Your task to perform on an android device: Go to eBay Image 0: 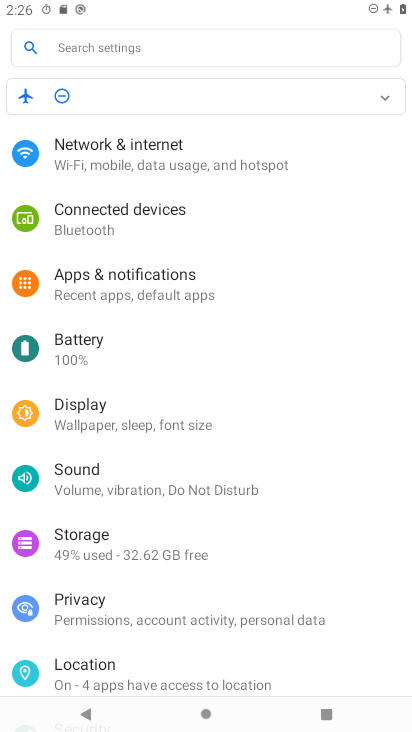
Step 0: press home button
Your task to perform on an android device: Go to eBay Image 1: 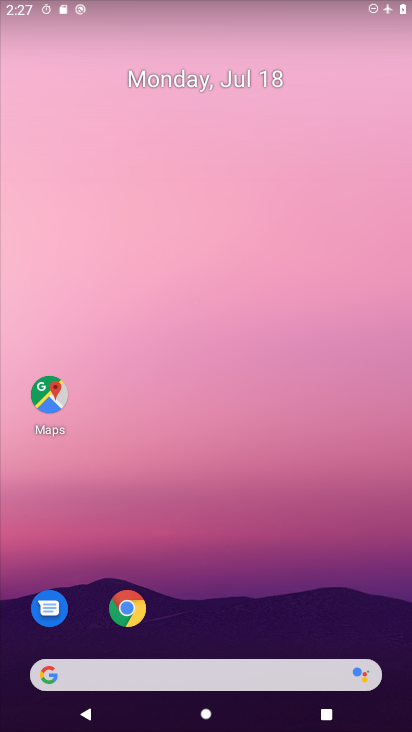
Step 1: click (121, 609)
Your task to perform on an android device: Go to eBay Image 2: 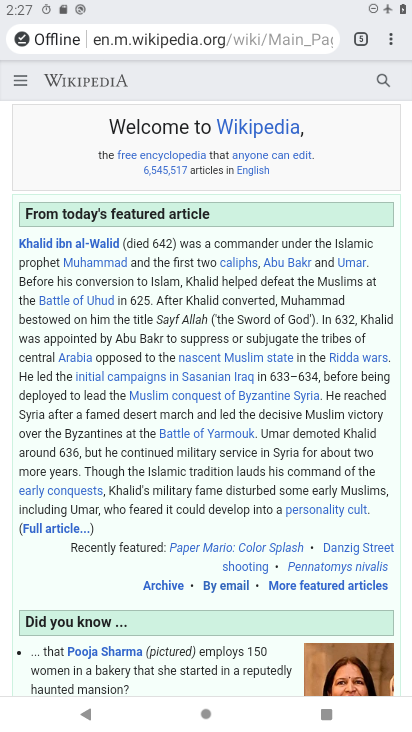
Step 2: click (392, 41)
Your task to perform on an android device: Go to eBay Image 3: 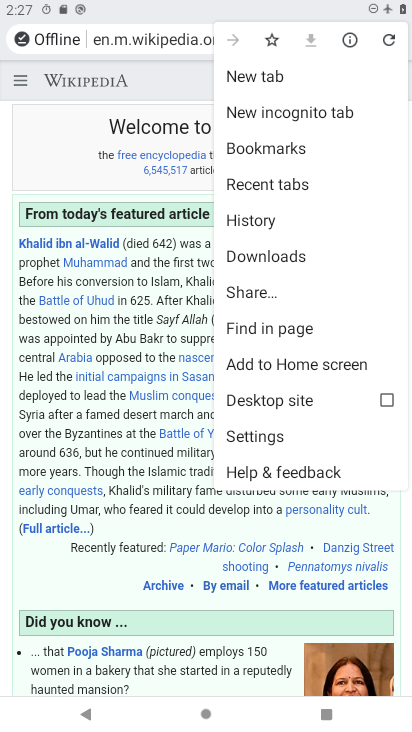
Step 3: click (270, 74)
Your task to perform on an android device: Go to eBay Image 4: 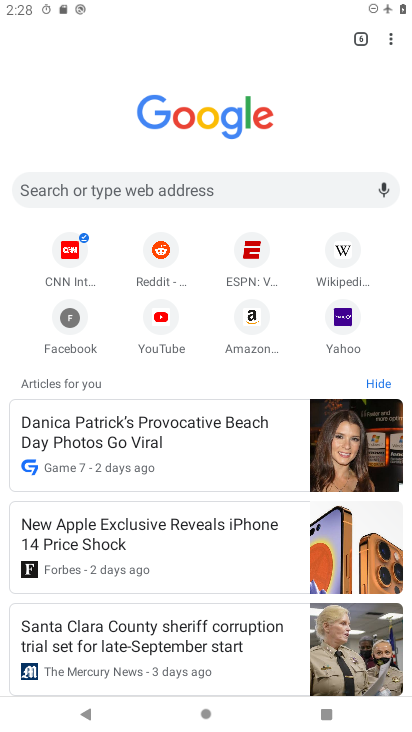
Step 4: click (229, 178)
Your task to perform on an android device: Go to eBay Image 5: 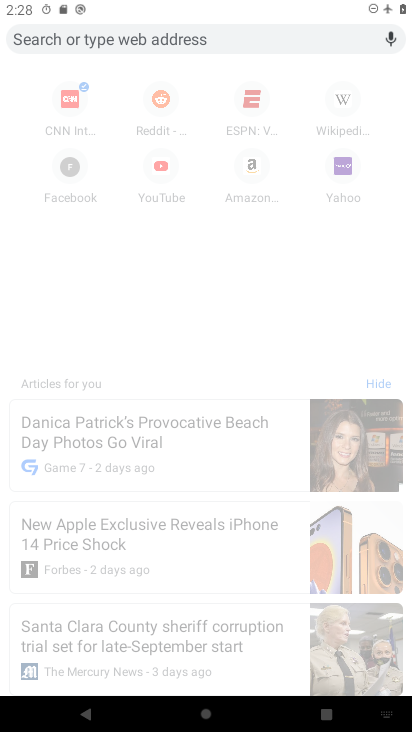
Step 5: type "eBay"
Your task to perform on an android device: Go to eBay Image 6: 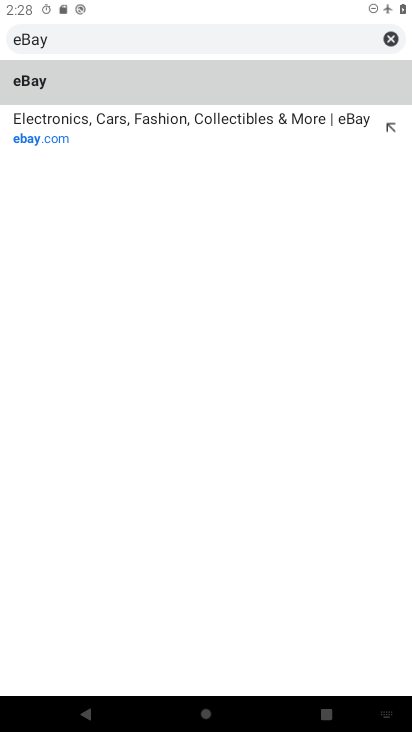
Step 6: click (61, 75)
Your task to perform on an android device: Go to eBay Image 7: 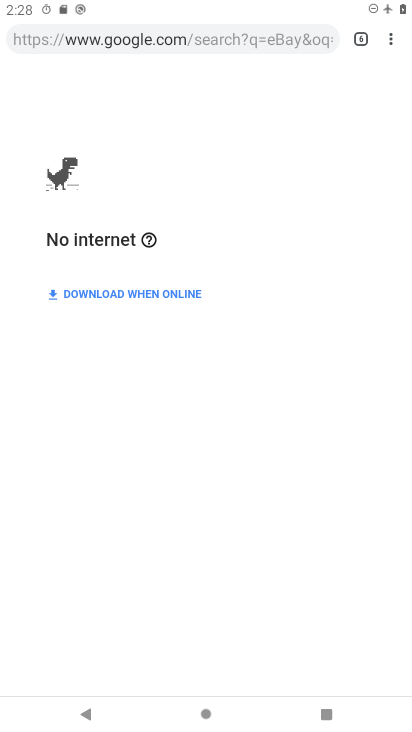
Step 7: task complete